Your task to perform on an android device: change notifications settings Image 0: 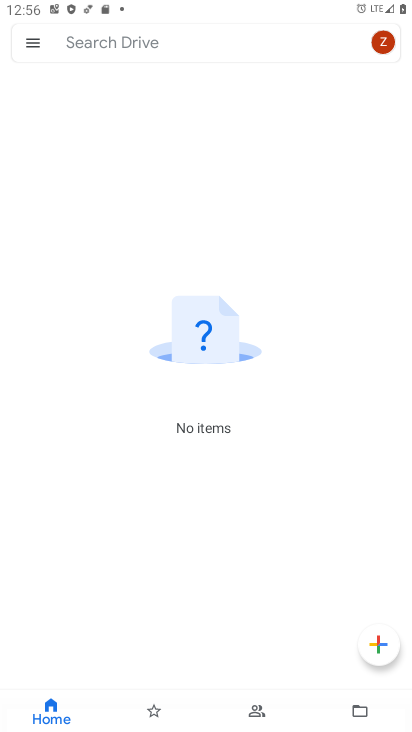
Step 0: press home button
Your task to perform on an android device: change notifications settings Image 1: 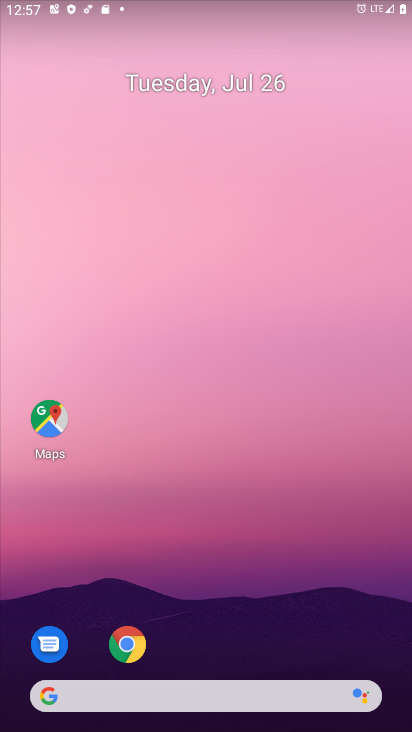
Step 1: drag from (145, 730) to (238, 72)
Your task to perform on an android device: change notifications settings Image 2: 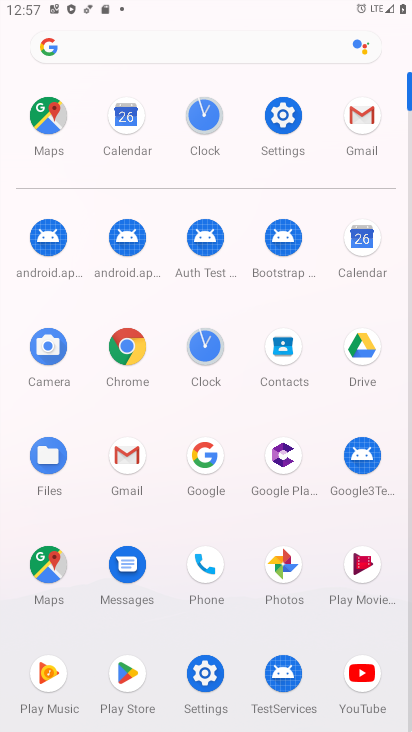
Step 2: click (278, 121)
Your task to perform on an android device: change notifications settings Image 3: 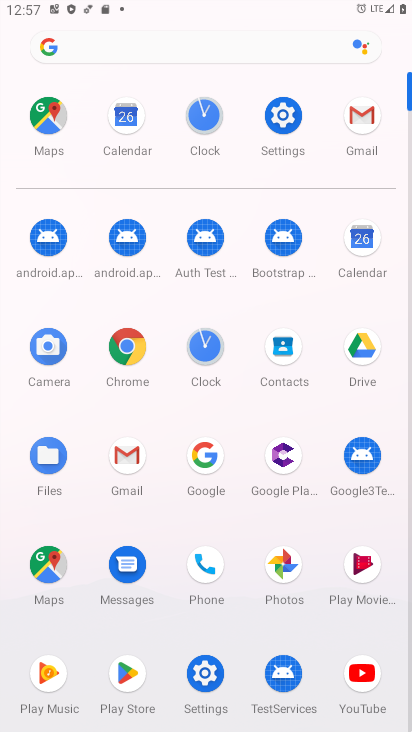
Step 3: click (278, 121)
Your task to perform on an android device: change notifications settings Image 4: 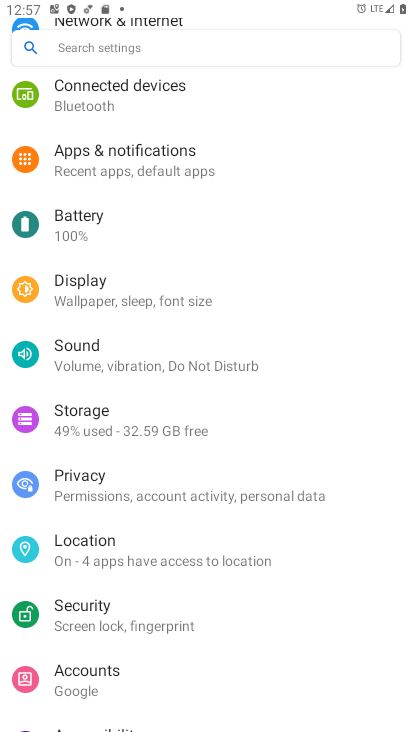
Step 4: click (197, 167)
Your task to perform on an android device: change notifications settings Image 5: 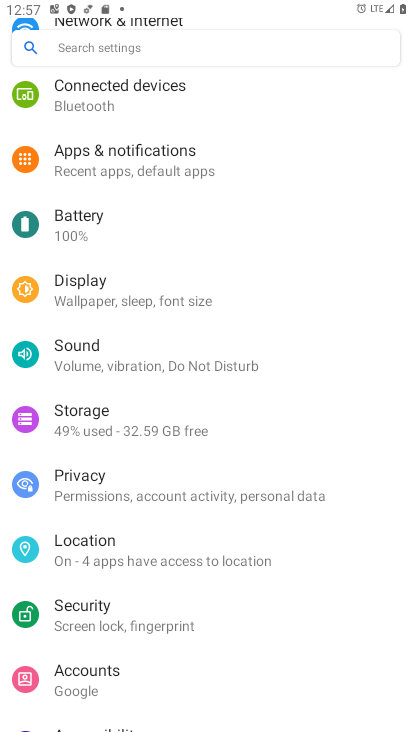
Step 5: click (197, 167)
Your task to perform on an android device: change notifications settings Image 6: 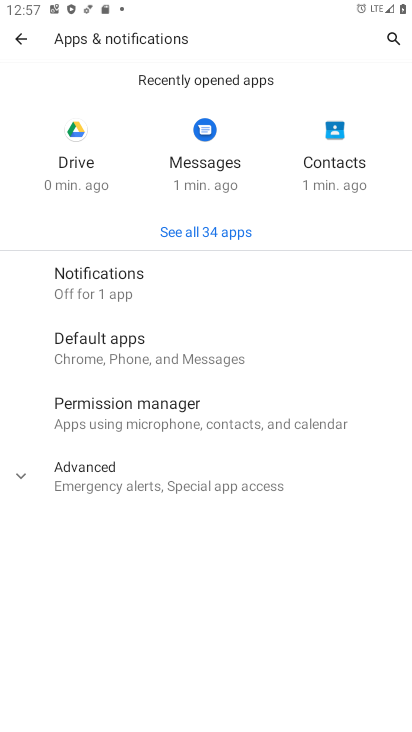
Step 6: click (169, 284)
Your task to perform on an android device: change notifications settings Image 7: 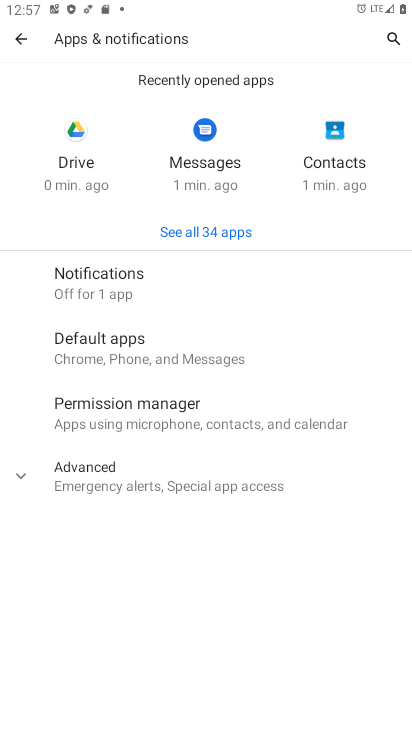
Step 7: click (169, 284)
Your task to perform on an android device: change notifications settings Image 8: 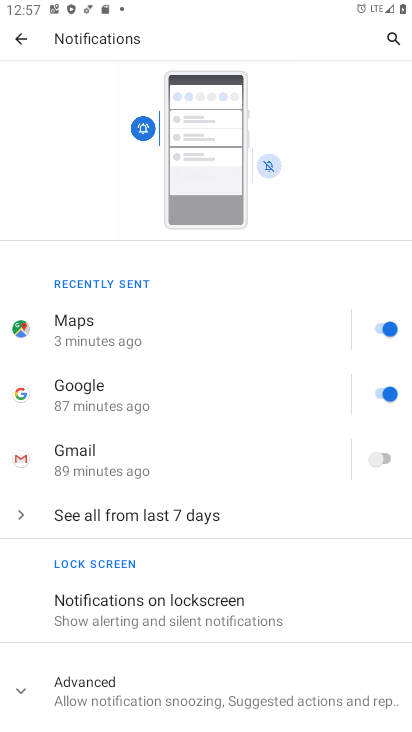
Step 8: click (390, 328)
Your task to perform on an android device: change notifications settings Image 9: 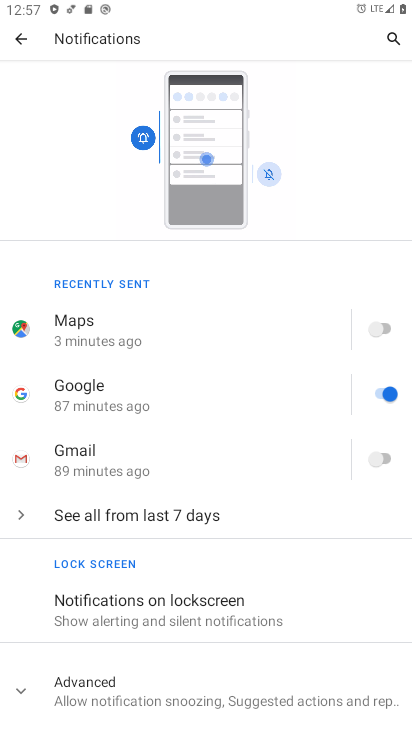
Step 9: task complete